Your task to perform on an android device: Open Android settings Image 0: 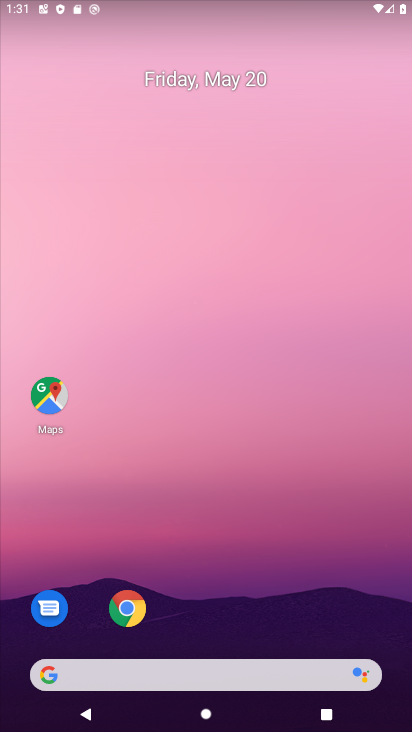
Step 0: drag from (205, 618) to (257, 91)
Your task to perform on an android device: Open Android settings Image 1: 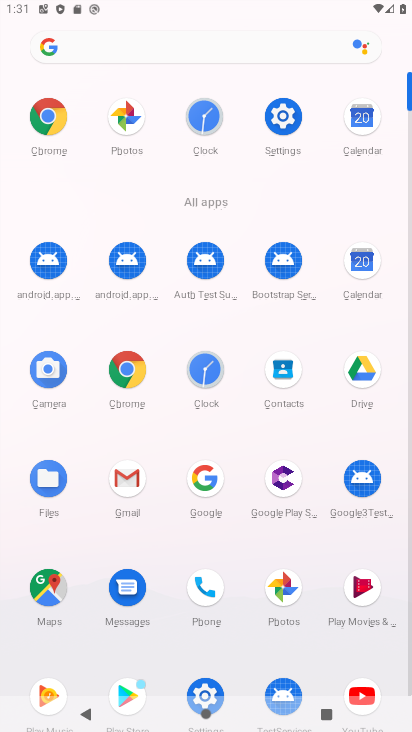
Step 1: click (294, 108)
Your task to perform on an android device: Open Android settings Image 2: 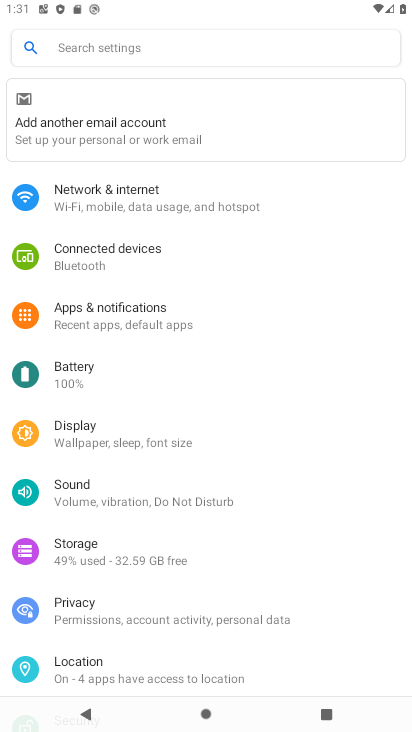
Step 2: drag from (171, 652) to (295, 97)
Your task to perform on an android device: Open Android settings Image 3: 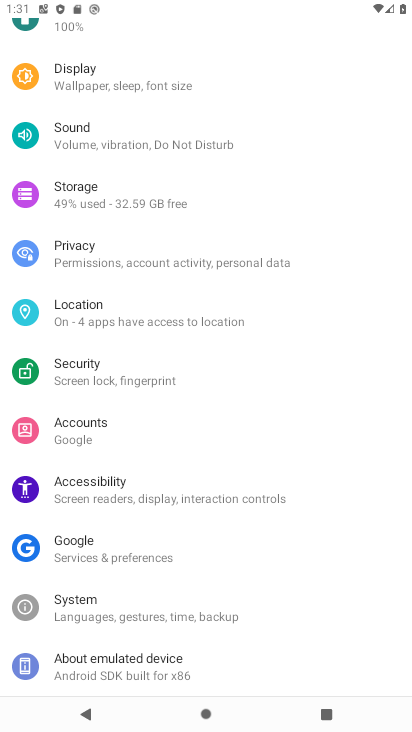
Step 3: drag from (136, 659) to (241, 72)
Your task to perform on an android device: Open Android settings Image 4: 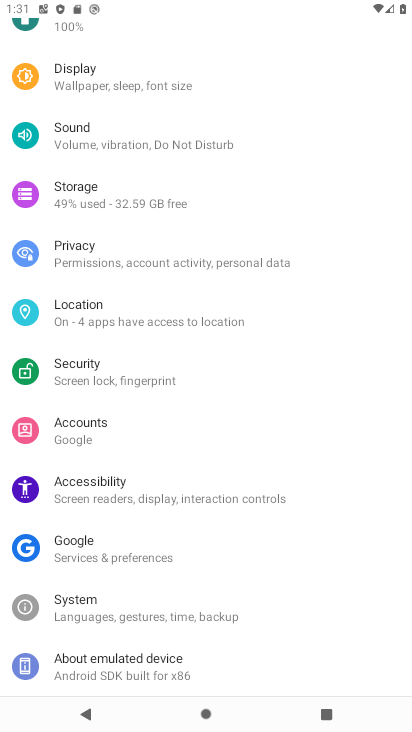
Step 4: click (115, 675)
Your task to perform on an android device: Open Android settings Image 5: 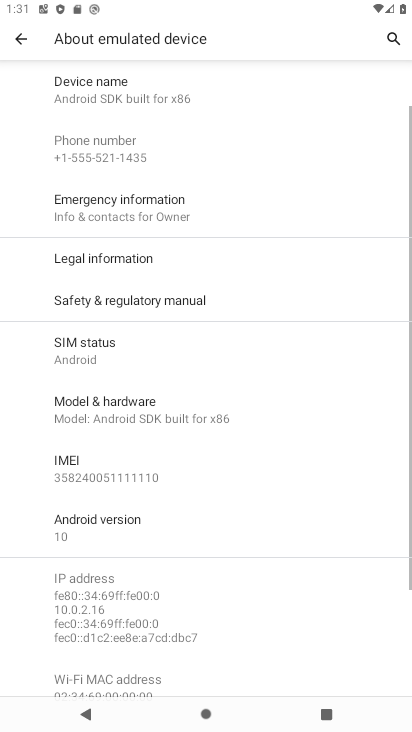
Step 5: click (113, 537)
Your task to perform on an android device: Open Android settings Image 6: 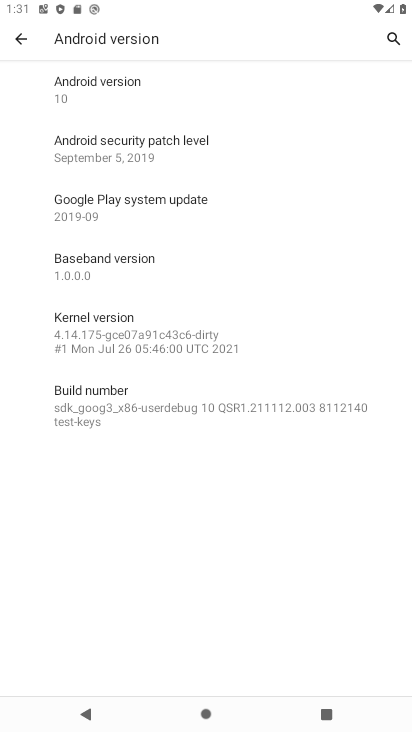
Step 6: task complete